Your task to perform on an android device: Open notification settings Image 0: 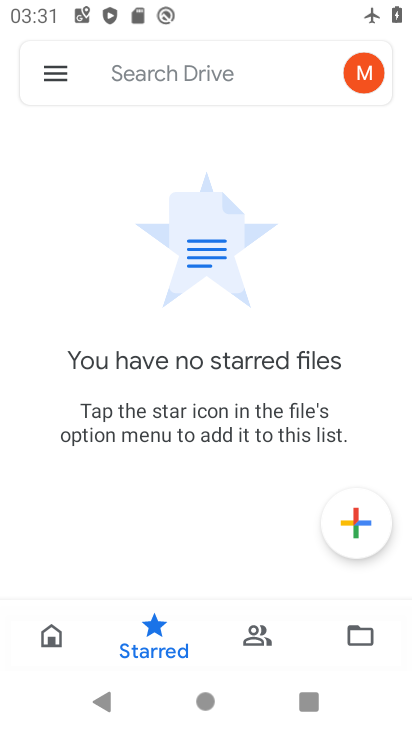
Step 0: press home button
Your task to perform on an android device: Open notification settings Image 1: 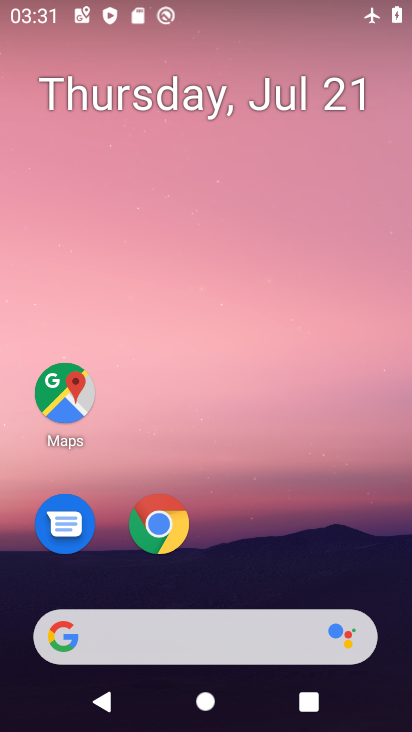
Step 1: drag from (265, 485) to (283, 16)
Your task to perform on an android device: Open notification settings Image 2: 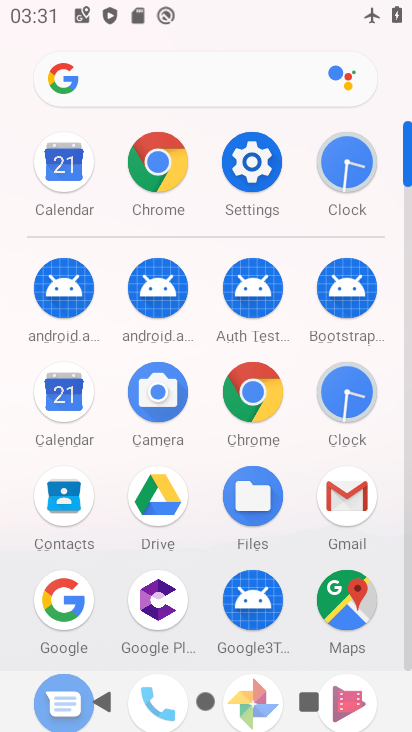
Step 2: click (246, 157)
Your task to perform on an android device: Open notification settings Image 3: 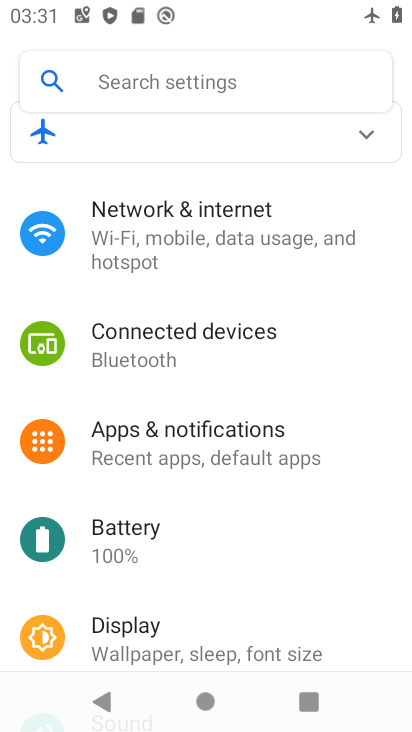
Step 3: drag from (207, 588) to (234, 442)
Your task to perform on an android device: Open notification settings Image 4: 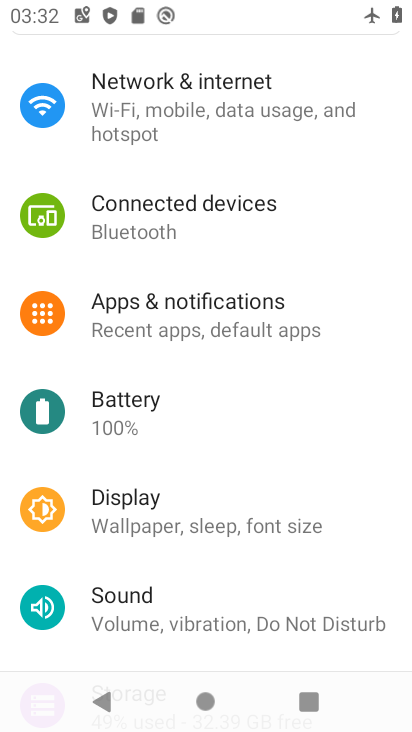
Step 4: click (243, 316)
Your task to perform on an android device: Open notification settings Image 5: 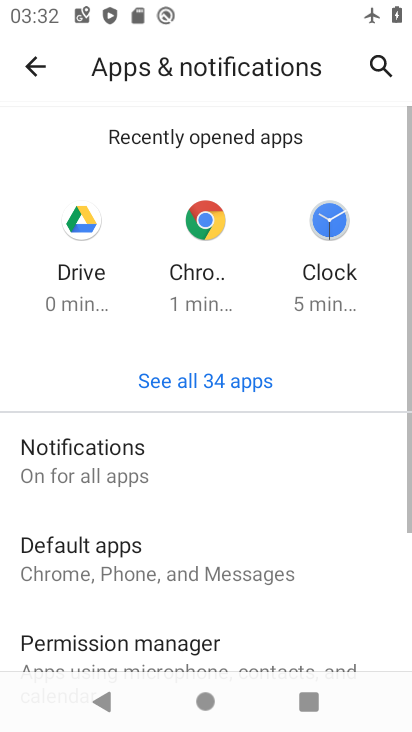
Step 5: click (117, 455)
Your task to perform on an android device: Open notification settings Image 6: 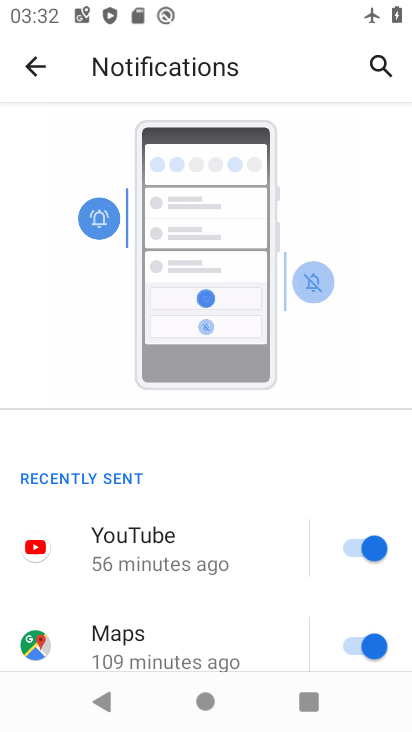
Step 6: task complete